Your task to perform on an android device: toggle notification dots Image 0: 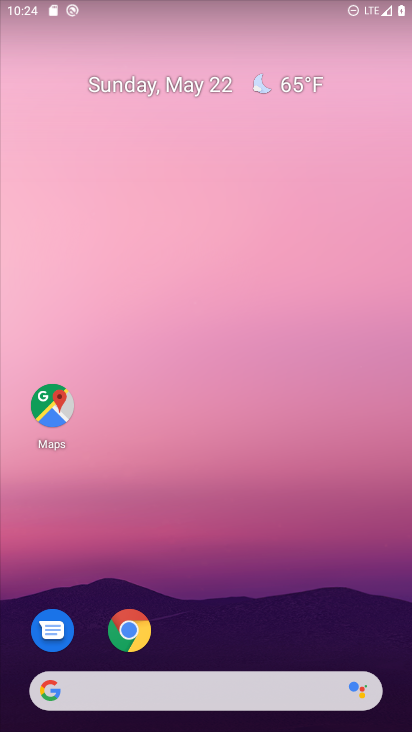
Step 0: press home button
Your task to perform on an android device: toggle notification dots Image 1: 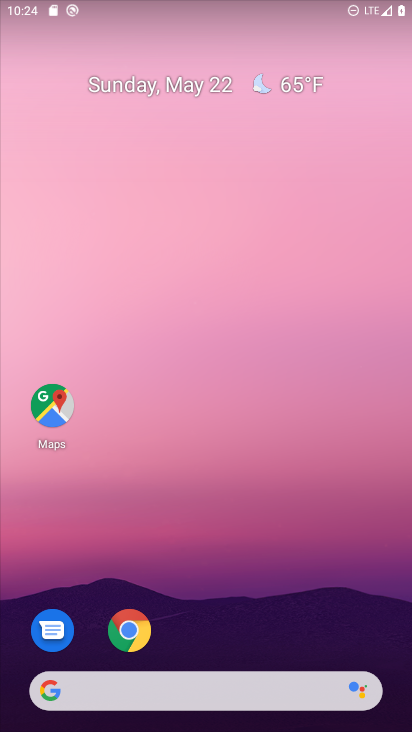
Step 1: drag from (163, 681) to (326, 93)
Your task to perform on an android device: toggle notification dots Image 2: 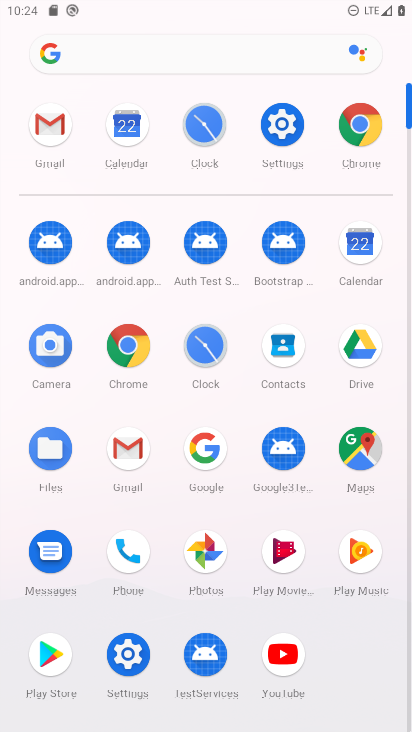
Step 2: click (289, 127)
Your task to perform on an android device: toggle notification dots Image 3: 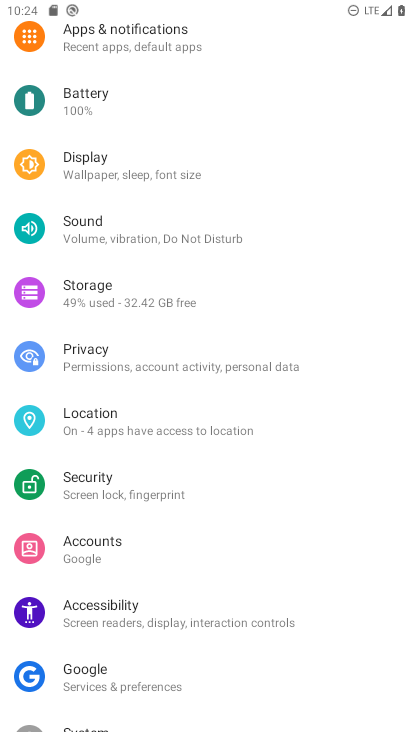
Step 3: click (167, 36)
Your task to perform on an android device: toggle notification dots Image 4: 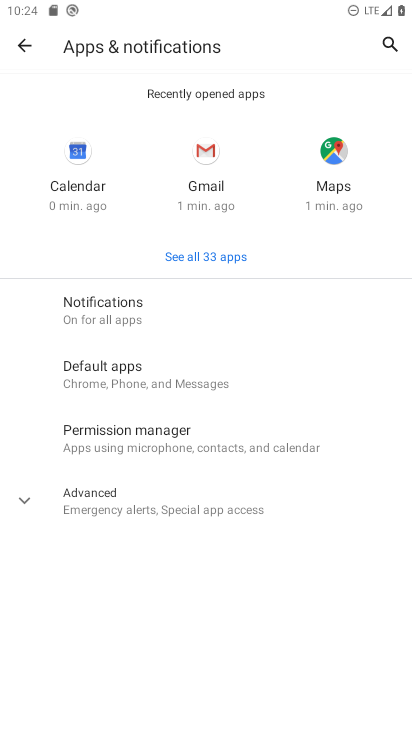
Step 4: click (96, 300)
Your task to perform on an android device: toggle notification dots Image 5: 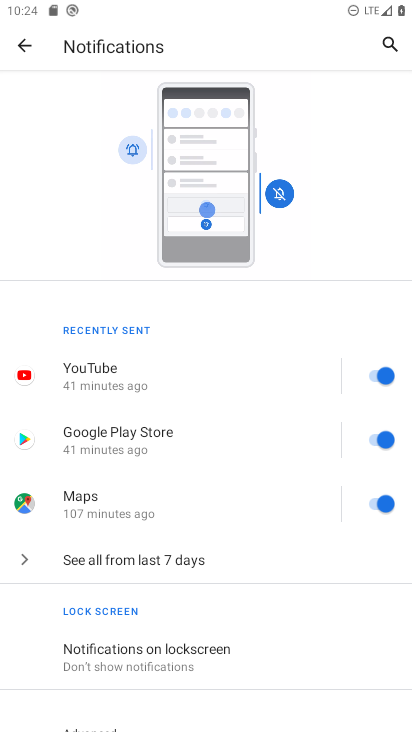
Step 5: drag from (158, 619) to (289, 307)
Your task to perform on an android device: toggle notification dots Image 6: 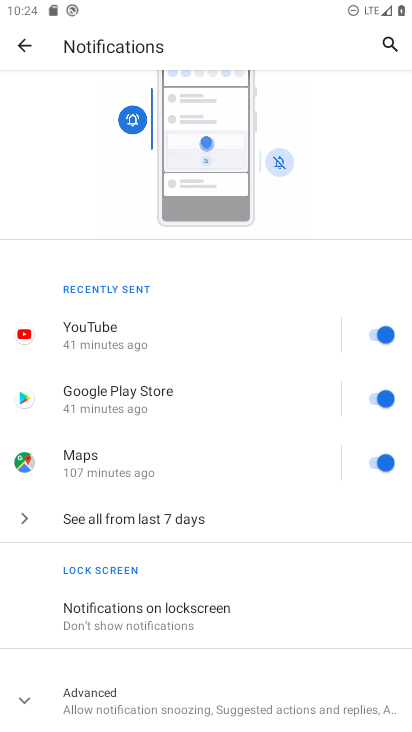
Step 6: click (165, 697)
Your task to perform on an android device: toggle notification dots Image 7: 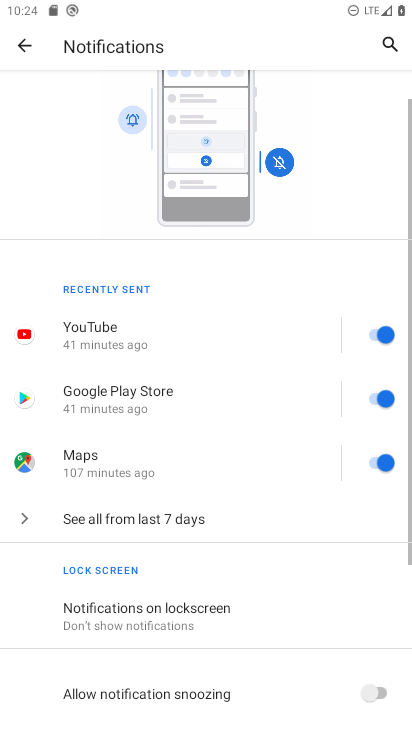
Step 7: drag from (211, 636) to (300, 172)
Your task to perform on an android device: toggle notification dots Image 8: 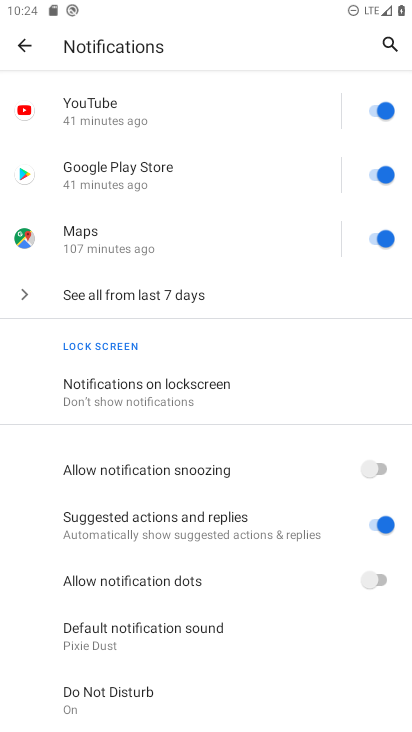
Step 8: click (381, 579)
Your task to perform on an android device: toggle notification dots Image 9: 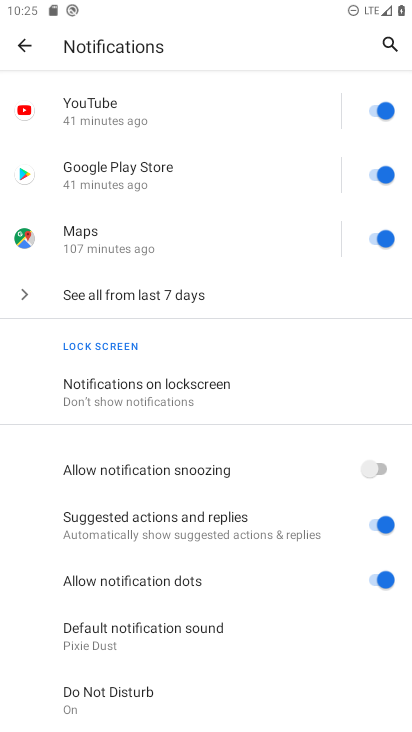
Step 9: task complete